Your task to perform on an android device: toggle notifications settings in the gmail app Image 0: 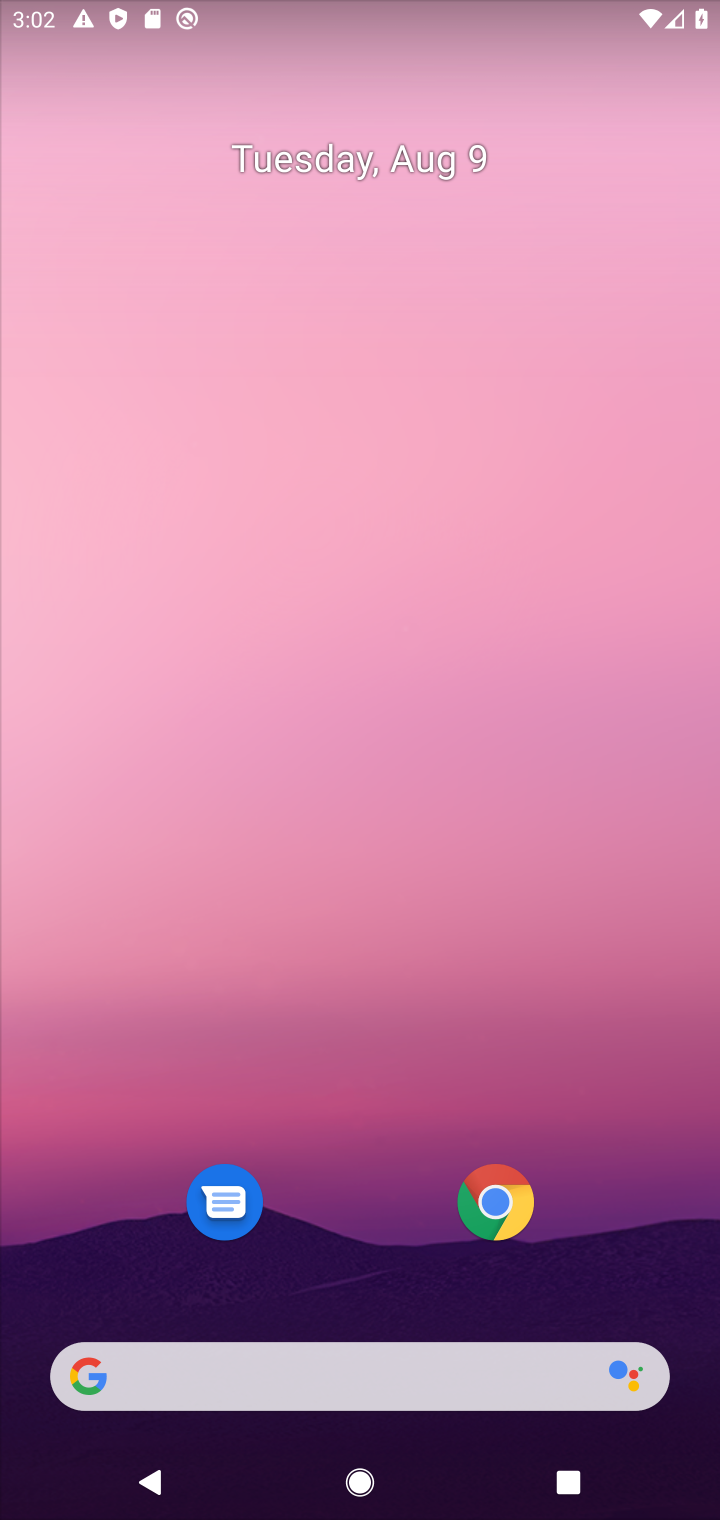
Step 0: drag from (415, 1035) to (20, 1)
Your task to perform on an android device: toggle notifications settings in the gmail app Image 1: 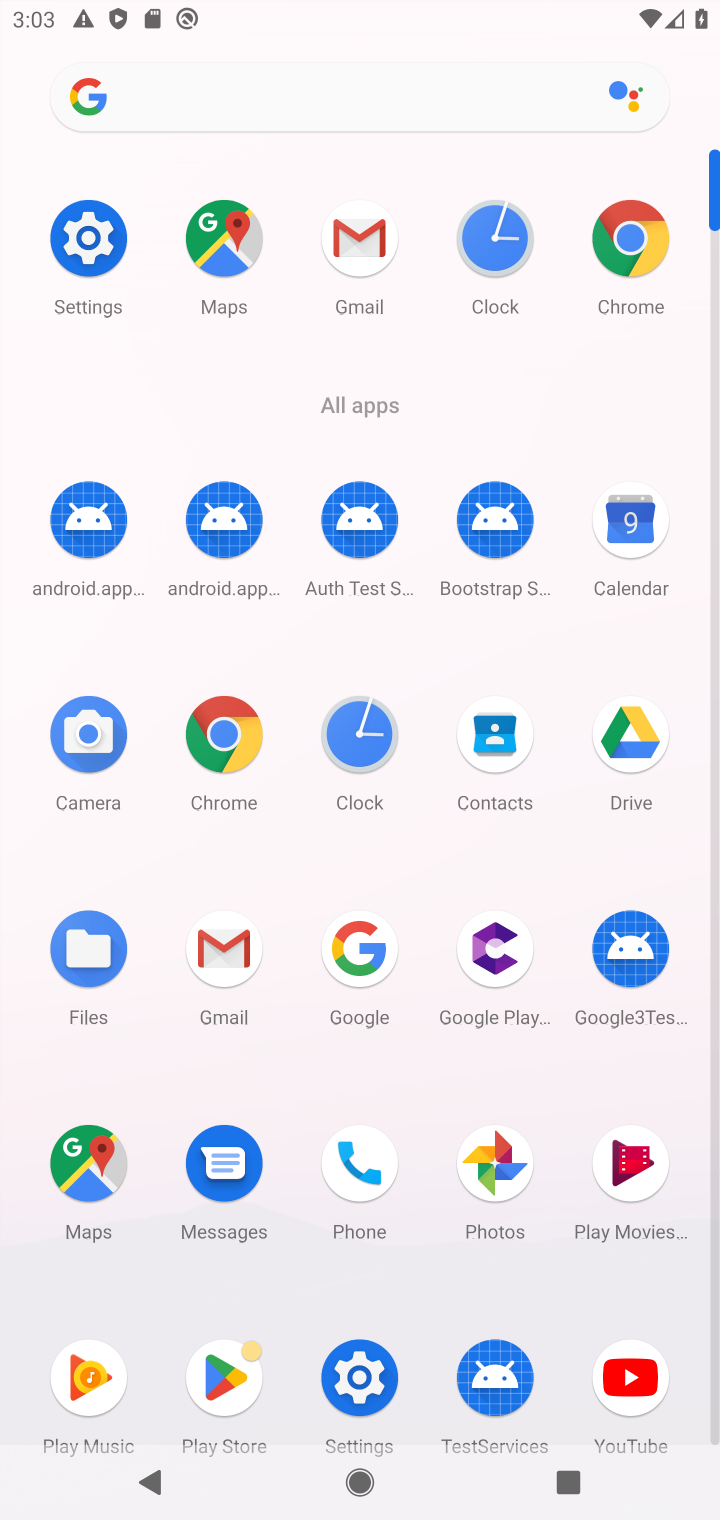
Step 1: click (255, 947)
Your task to perform on an android device: toggle notifications settings in the gmail app Image 2: 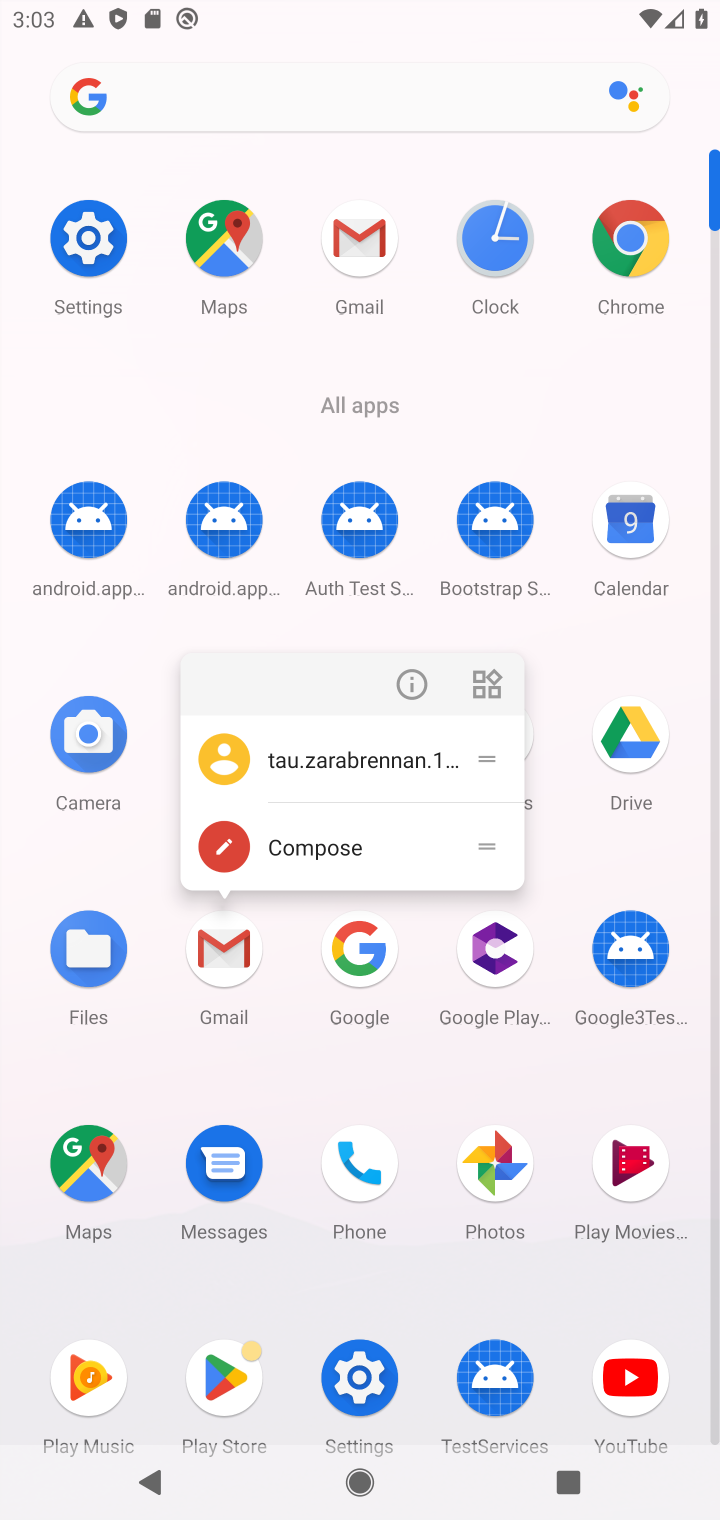
Step 2: click (424, 680)
Your task to perform on an android device: toggle notifications settings in the gmail app Image 3: 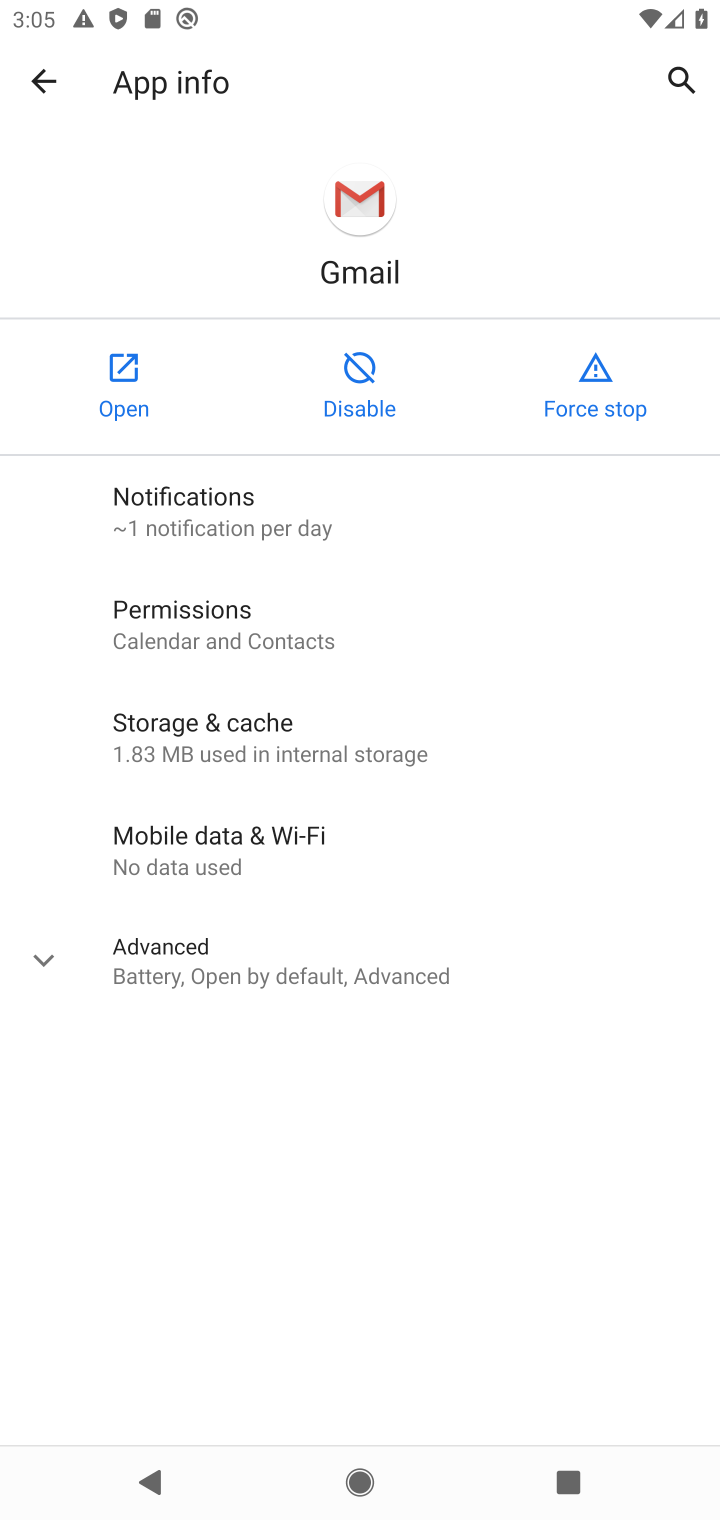
Step 3: click (241, 523)
Your task to perform on an android device: toggle notifications settings in the gmail app Image 4: 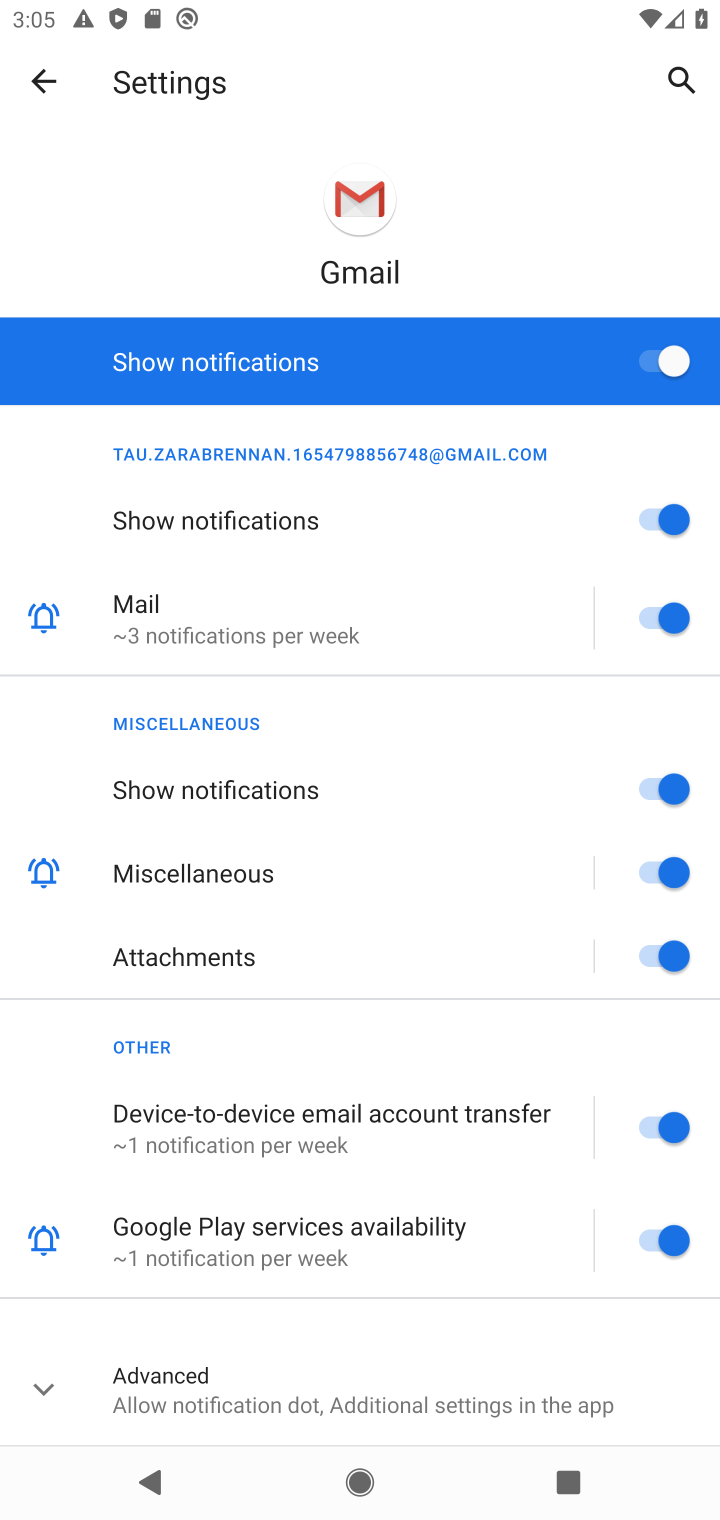
Step 4: click (591, 352)
Your task to perform on an android device: toggle notifications settings in the gmail app Image 5: 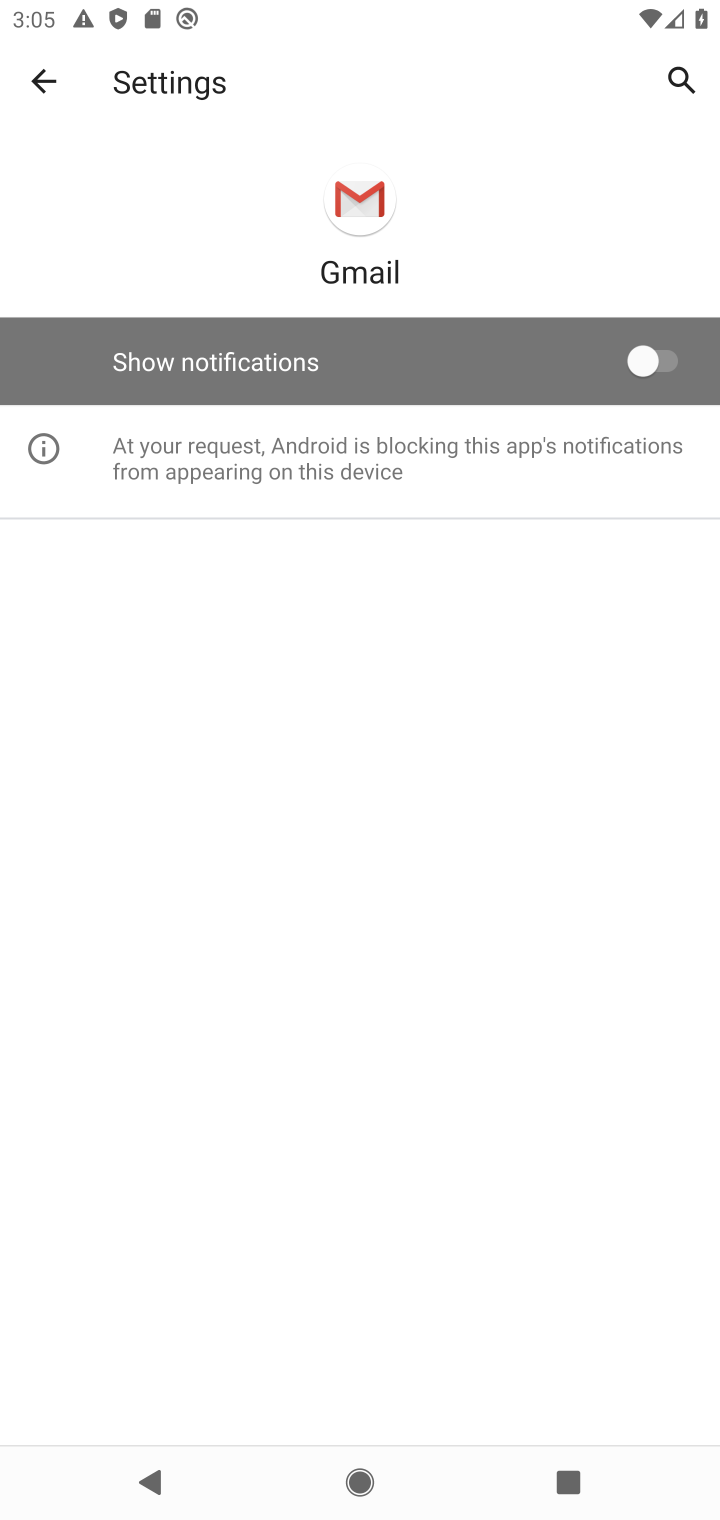
Step 5: task complete